Your task to perform on an android device: Open Google Chrome and click the shortcut for Amazon.com Image 0: 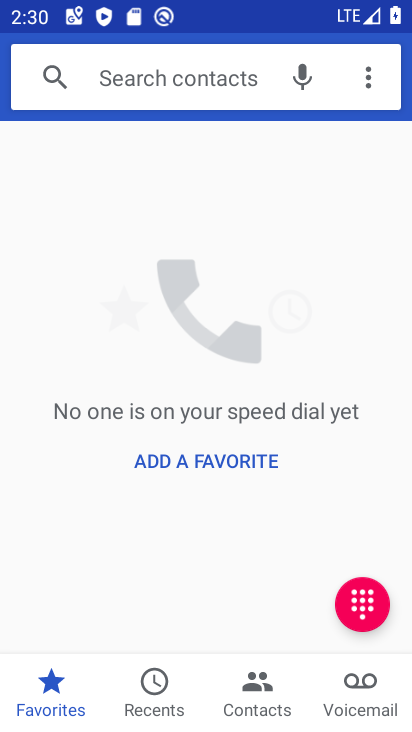
Step 0: press home button
Your task to perform on an android device: Open Google Chrome and click the shortcut for Amazon.com Image 1: 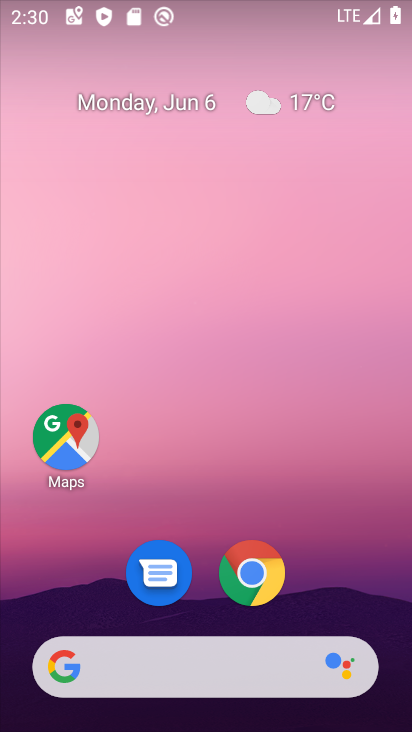
Step 1: drag from (362, 614) to (386, 204)
Your task to perform on an android device: Open Google Chrome and click the shortcut for Amazon.com Image 2: 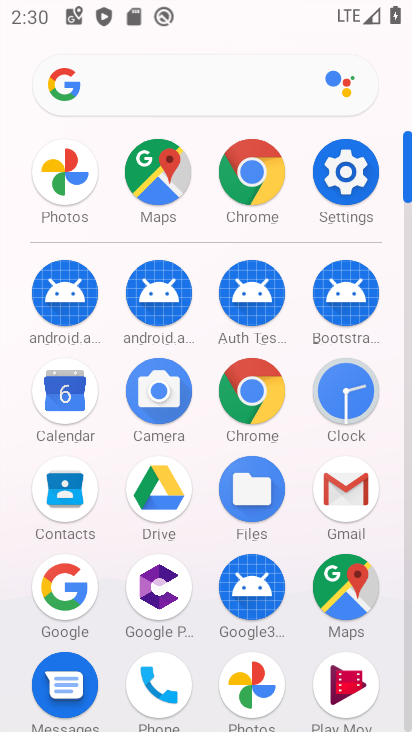
Step 2: click (266, 404)
Your task to perform on an android device: Open Google Chrome and click the shortcut for Amazon.com Image 3: 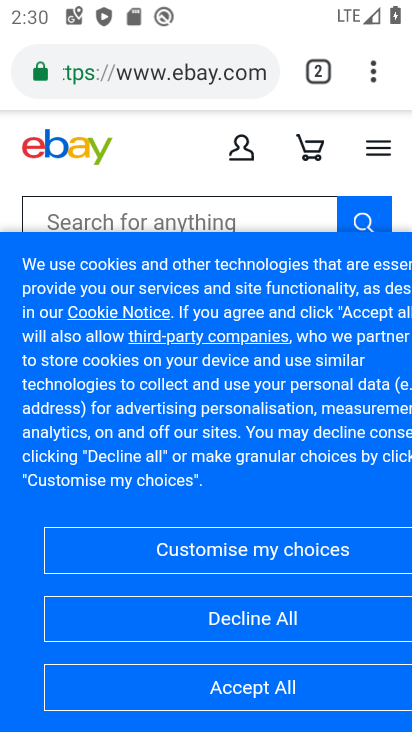
Step 3: press back button
Your task to perform on an android device: Open Google Chrome and click the shortcut for Amazon.com Image 4: 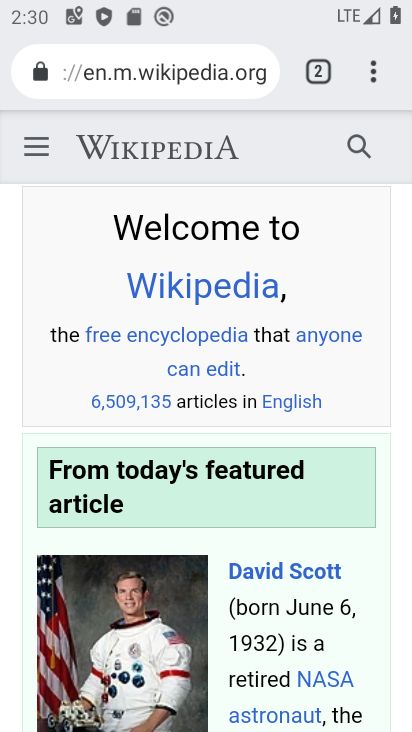
Step 4: press back button
Your task to perform on an android device: Open Google Chrome and click the shortcut for Amazon.com Image 5: 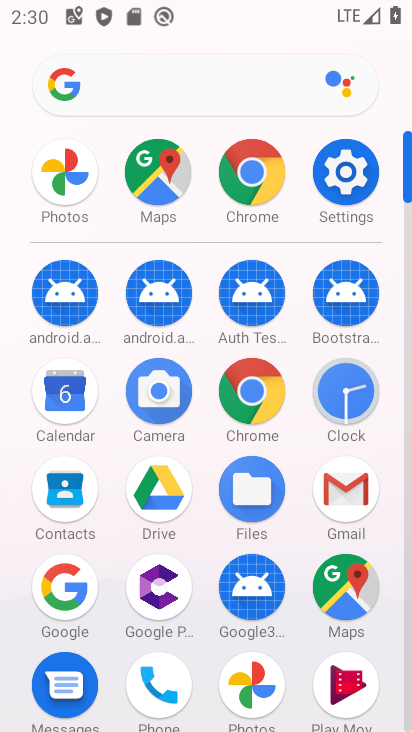
Step 5: click (254, 404)
Your task to perform on an android device: Open Google Chrome and click the shortcut for Amazon.com Image 6: 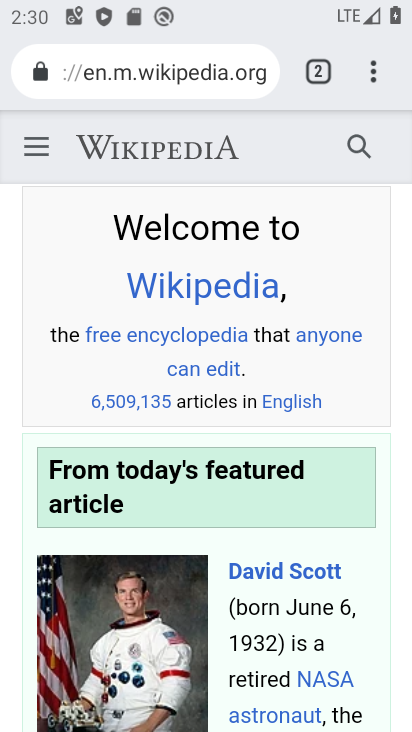
Step 6: press back button
Your task to perform on an android device: Open Google Chrome and click the shortcut for Amazon.com Image 7: 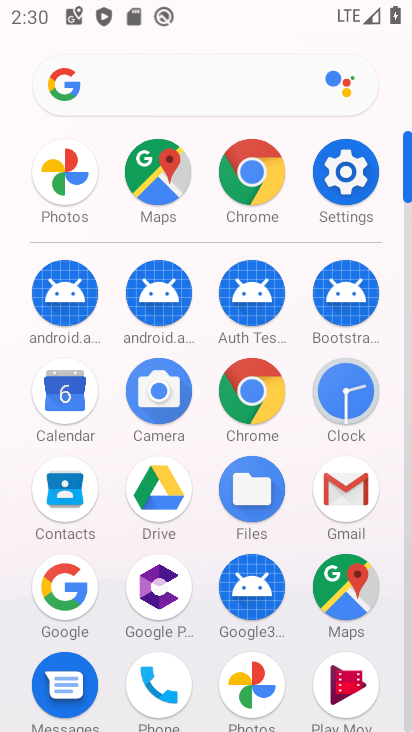
Step 7: click (258, 399)
Your task to perform on an android device: Open Google Chrome and click the shortcut for Amazon.com Image 8: 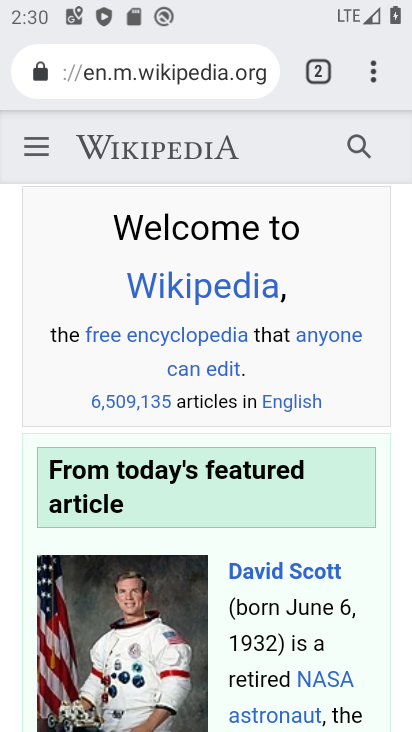
Step 8: click (313, 71)
Your task to perform on an android device: Open Google Chrome and click the shortcut for Amazon.com Image 9: 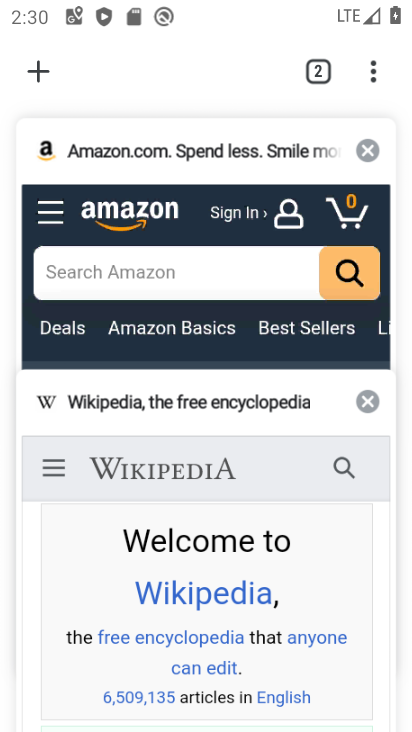
Step 9: click (209, 259)
Your task to perform on an android device: Open Google Chrome and click the shortcut for Amazon.com Image 10: 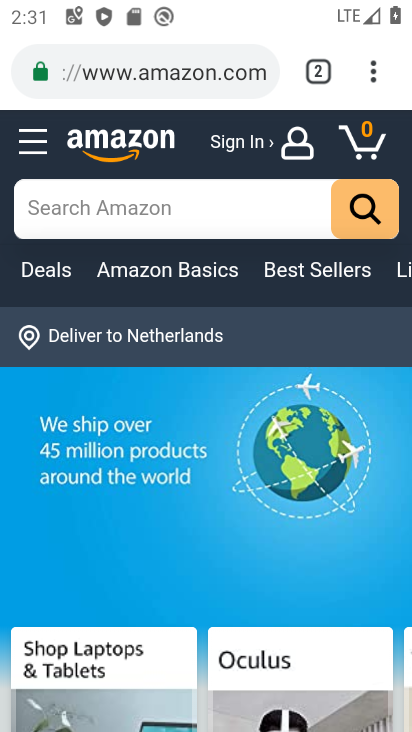
Step 10: task complete